Your task to perform on an android device: toggle translation in the chrome app Image 0: 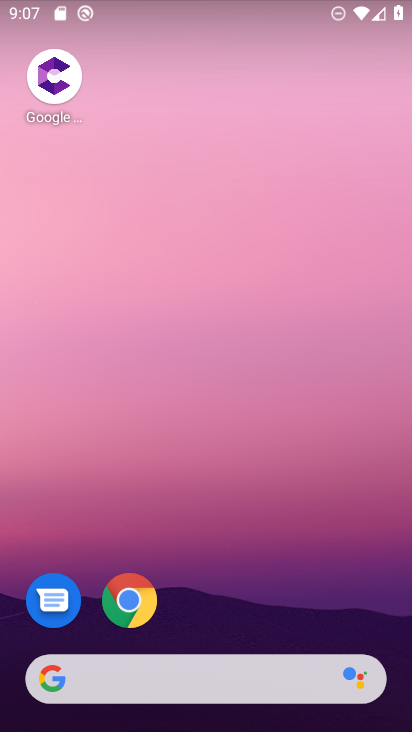
Step 0: click (131, 613)
Your task to perform on an android device: toggle translation in the chrome app Image 1: 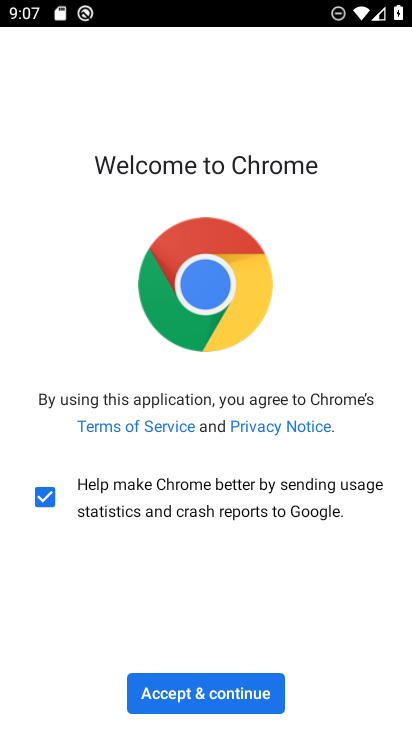
Step 1: click (224, 700)
Your task to perform on an android device: toggle translation in the chrome app Image 2: 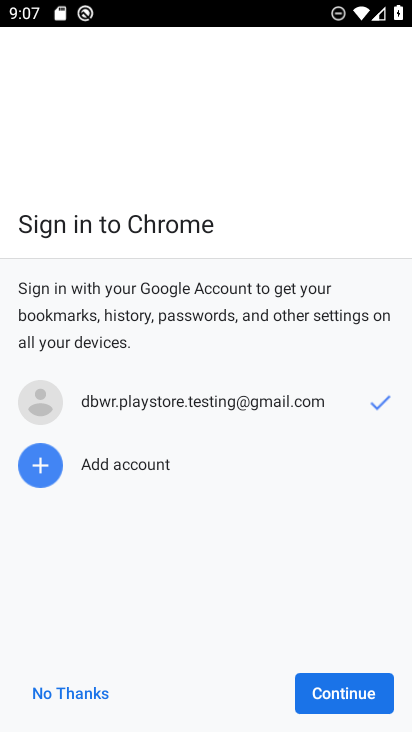
Step 2: click (313, 694)
Your task to perform on an android device: toggle translation in the chrome app Image 3: 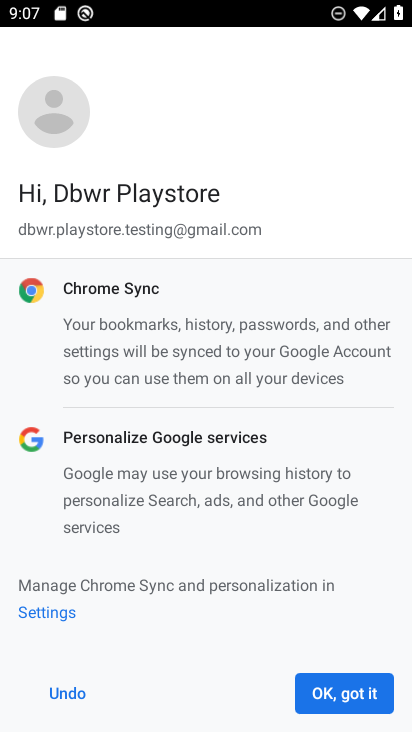
Step 3: click (313, 694)
Your task to perform on an android device: toggle translation in the chrome app Image 4: 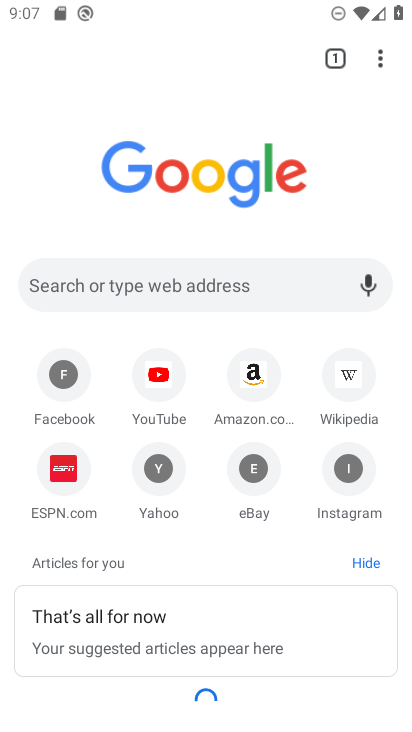
Step 4: click (381, 57)
Your task to perform on an android device: toggle translation in the chrome app Image 5: 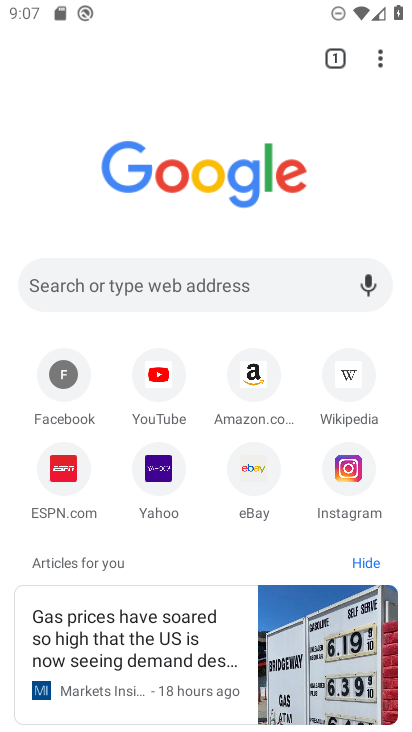
Step 5: click (376, 55)
Your task to perform on an android device: toggle translation in the chrome app Image 6: 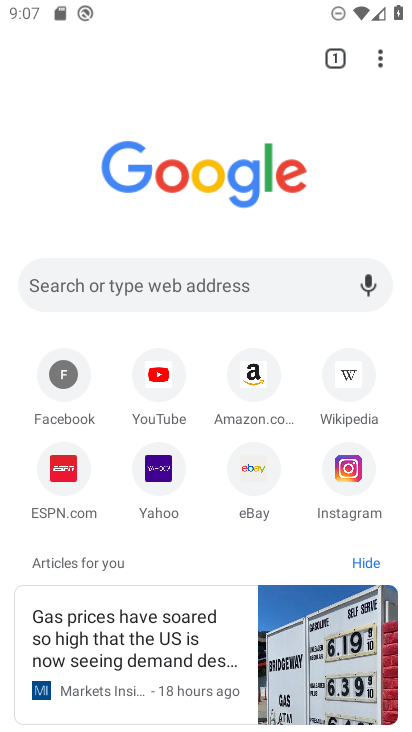
Step 6: click (383, 55)
Your task to perform on an android device: toggle translation in the chrome app Image 7: 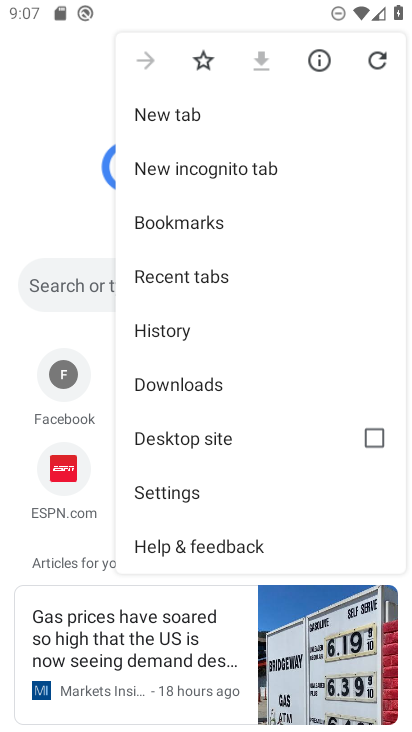
Step 7: click (184, 494)
Your task to perform on an android device: toggle translation in the chrome app Image 8: 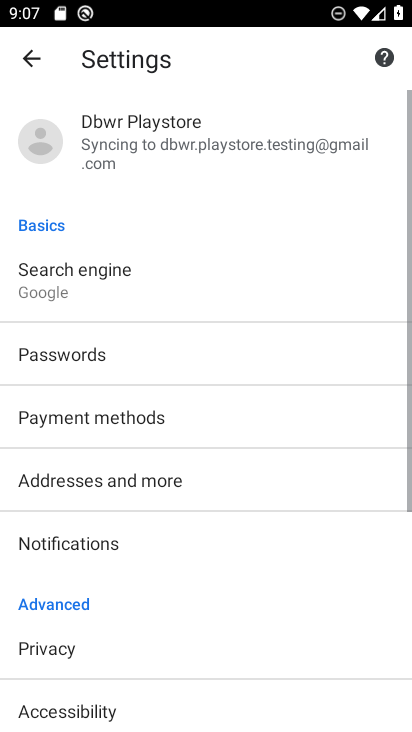
Step 8: drag from (122, 694) to (123, 219)
Your task to perform on an android device: toggle translation in the chrome app Image 9: 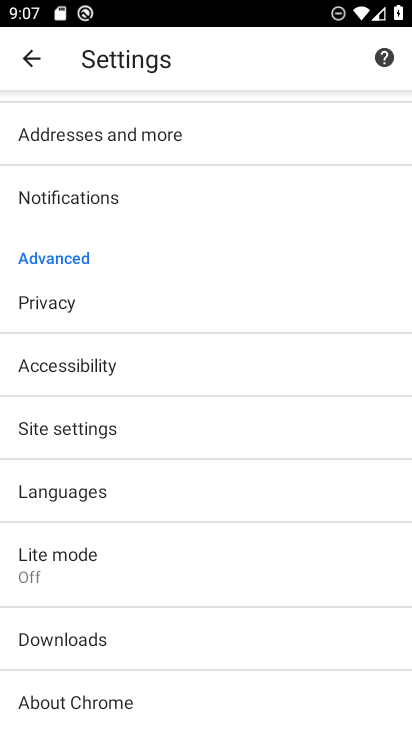
Step 9: click (47, 493)
Your task to perform on an android device: toggle translation in the chrome app Image 10: 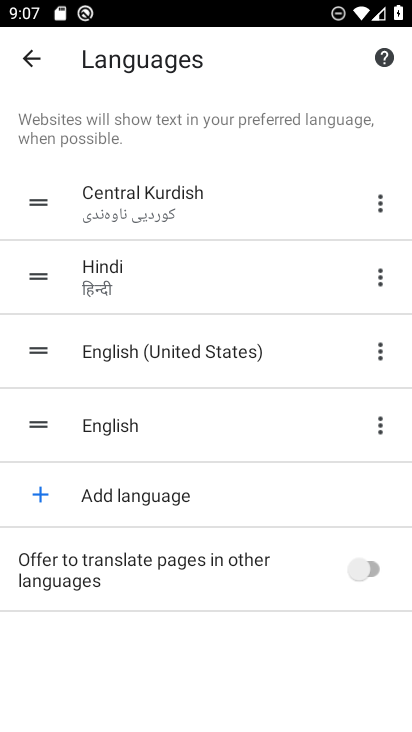
Step 10: click (367, 564)
Your task to perform on an android device: toggle translation in the chrome app Image 11: 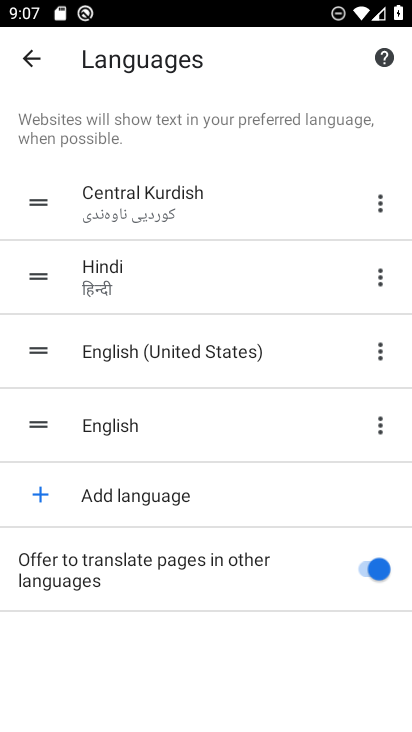
Step 11: task complete